Your task to perform on an android device: Open settings Image 0: 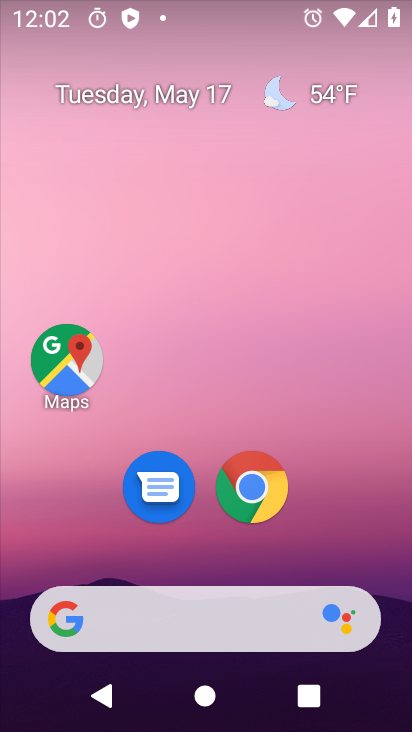
Step 0: drag from (194, 562) to (247, 27)
Your task to perform on an android device: Open settings Image 1: 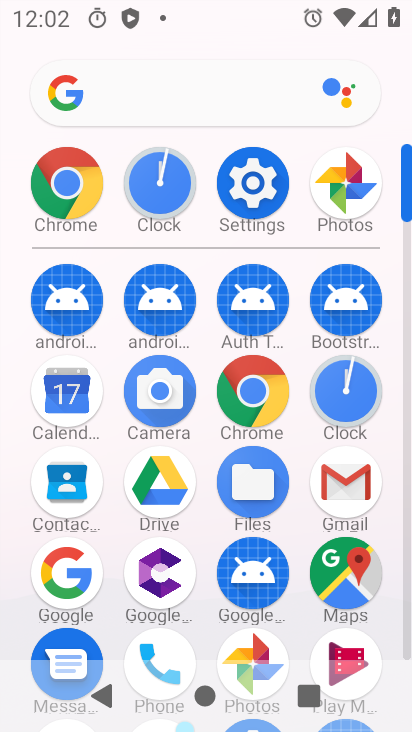
Step 1: click (243, 179)
Your task to perform on an android device: Open settings Image 2: 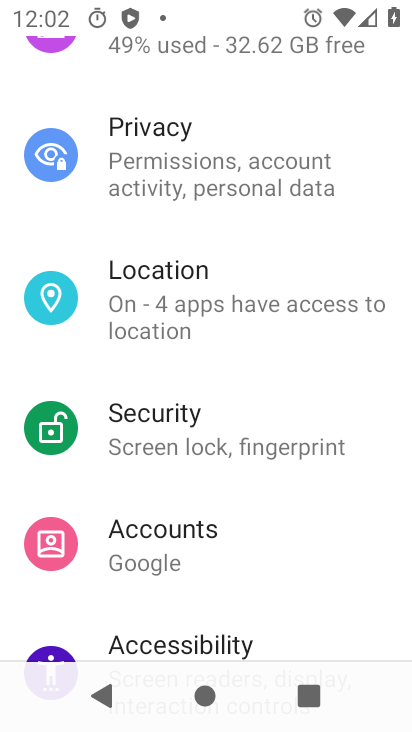
Step 2: task complete